Your task to perform on an android device: see creations saved in the google photos Image 0: 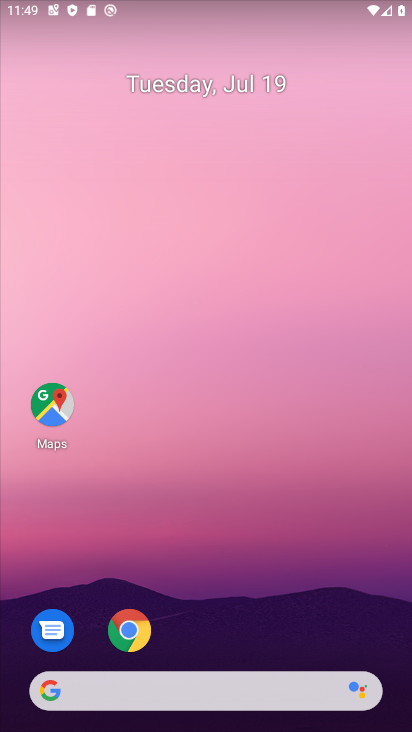
Step 0: drag from (238, 646) to (173, 198)
Your task to perform on an android device: see creations saved in the google photos Image 1: 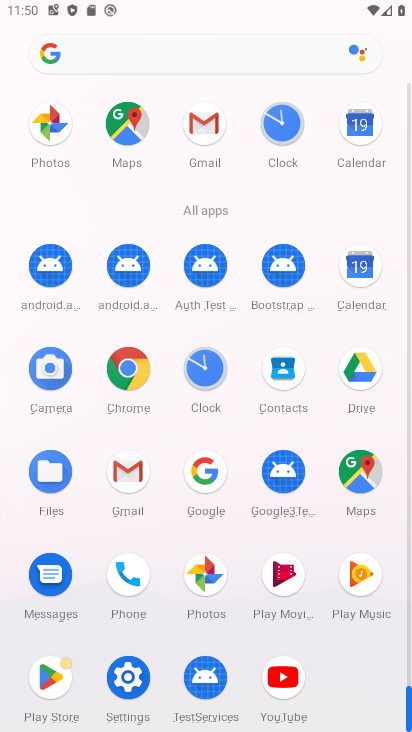
Step 1: click (201, 572)
Your task to perform on an android device: see creations saved in the google photos Image 2: 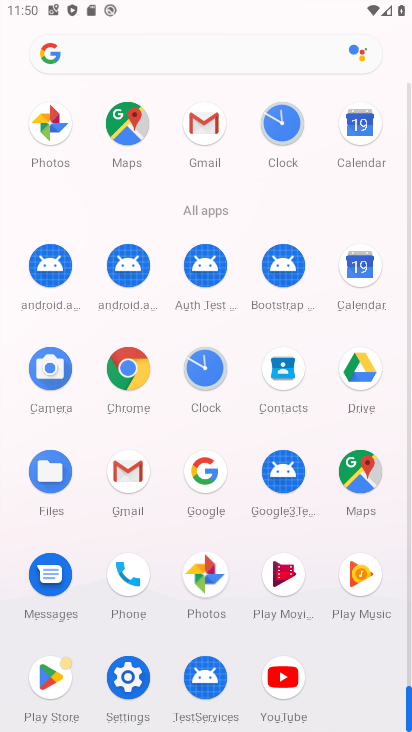
Step 2: click (206, 573)
Your task to perform on an android device: see creations saved in the google photos Image 3: 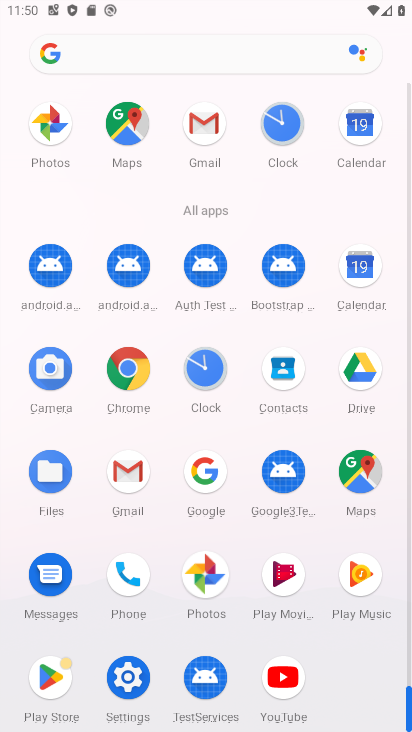
Step 3: click (206, 573)
Your task to perform on an android device: see creations saved in the google photos Image 4: 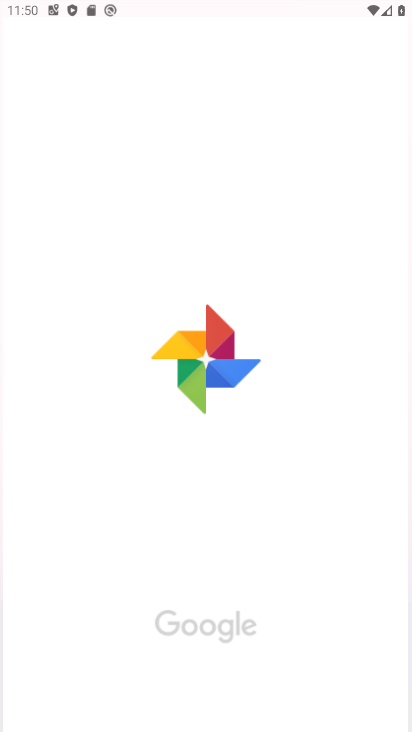
Step 4: click (206, 573)
Your task to perform on an android device: see creations saved in the google photos Image 5: 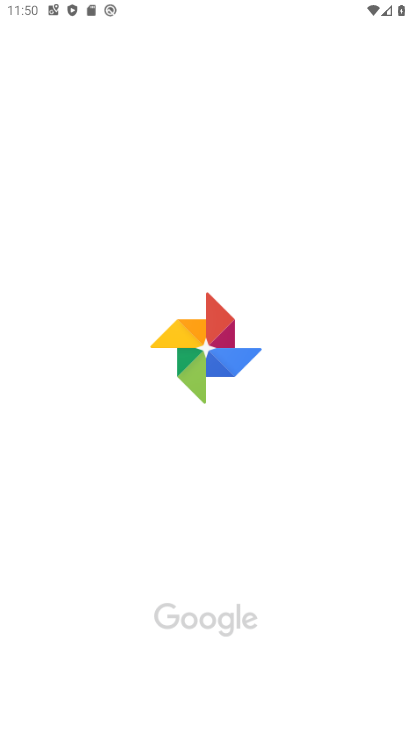
Step 5: click (207, 571)
Your task to perform on an android device: see creations saved in the google photos Image 6: 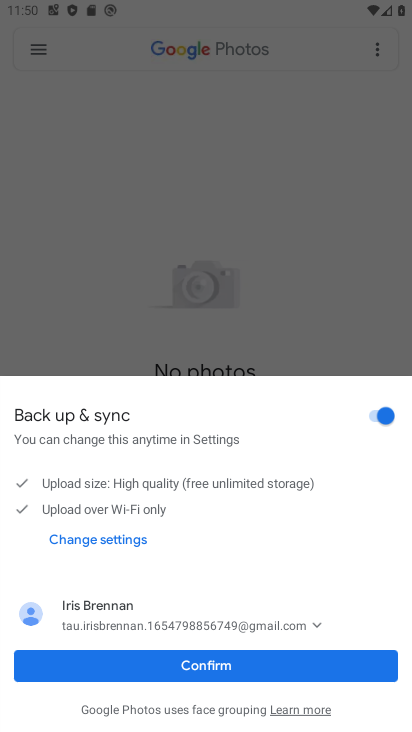
Step 6: click (237, 648)
Your task to perform on an android device: see creations saved in the google photos Image 7: 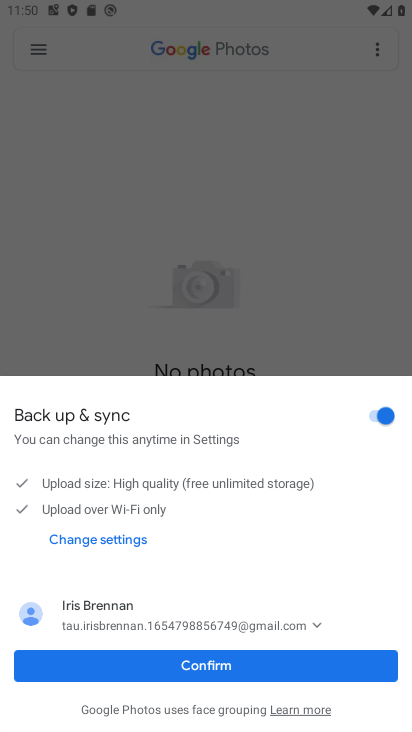
Step 7: click (240, 648)
Your task to perform on an android device: see creations saved in the google photos Image 8: 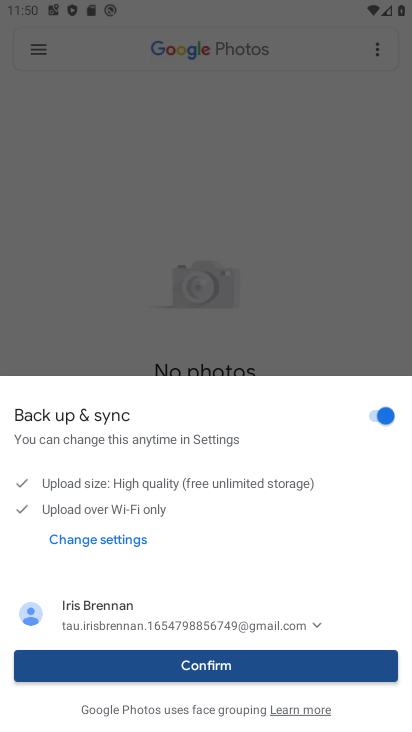
Step 8: click (249, 661)
Your task to perform on an android device: see creations saved in the google photos Image 9: 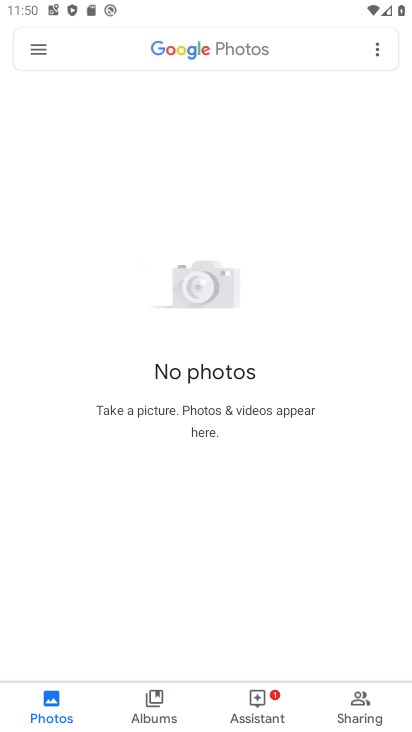
Step 9: click (250, 661)
Your task to perform on an android device: see creations saved in the google photos Image 10: 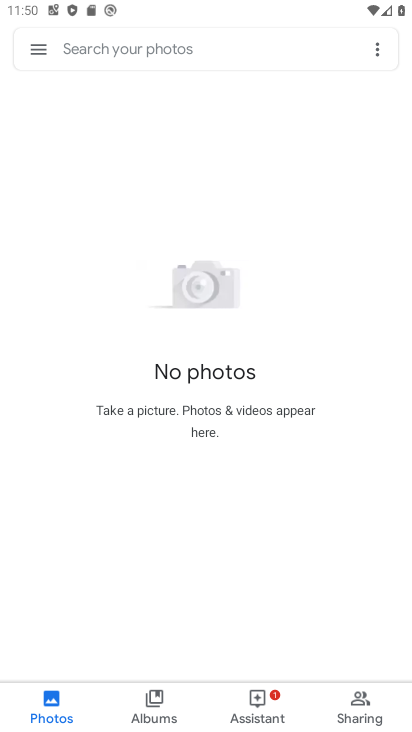
Step 10: task complete